Your task to perform on an android device: Open Wikipedia Image 0: 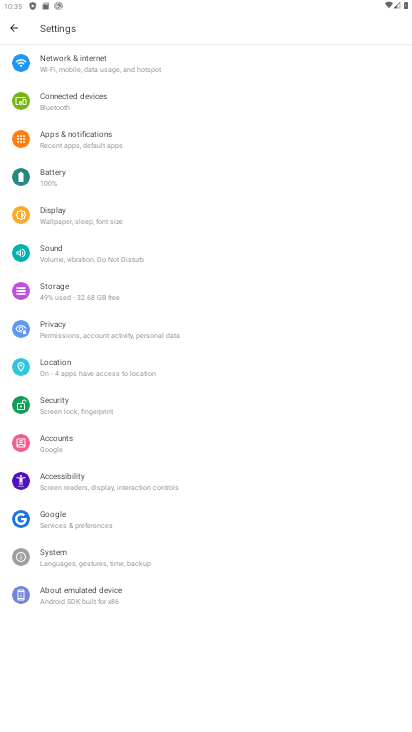
Step 0: press home button
Your task to perform on an android device: Open Wikipedia Image 1: 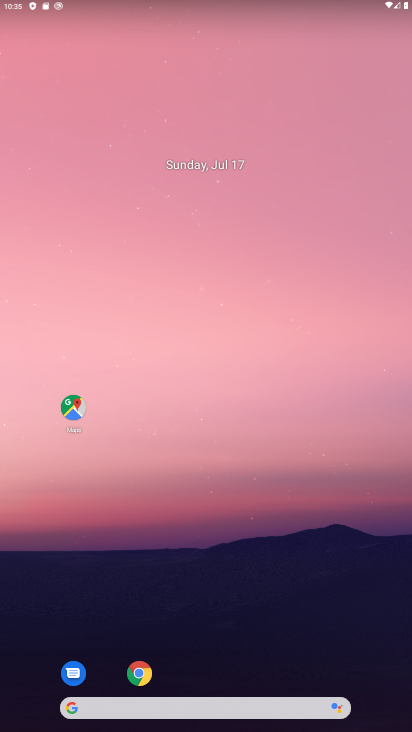
Step 1: drag from (201, 665) to (208, 143)
Your task to perform on an android device: Open Wikipedia Image 2: 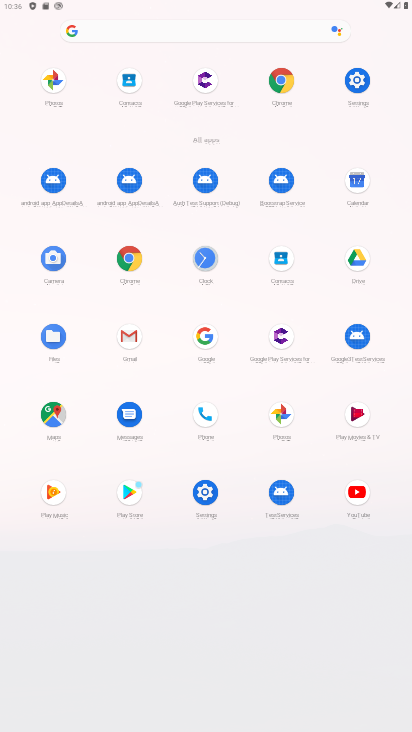
Step 2: click (130, 264)
Your task to perform on an android device: Open Wikipedia Image 3: 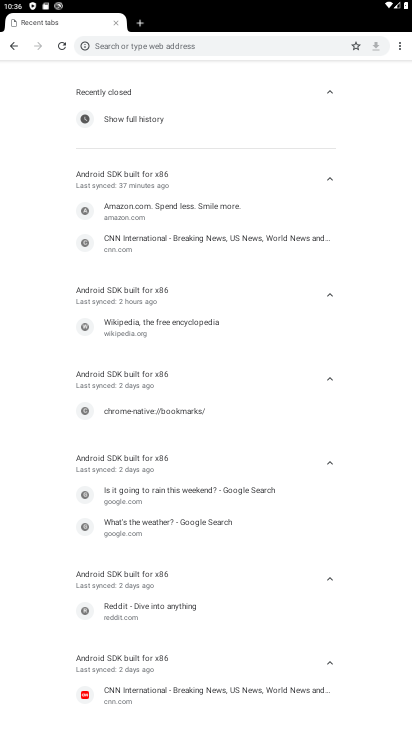
Step 3: press back button
Your task to perform on an android device: Open Wikipedia Image 4: 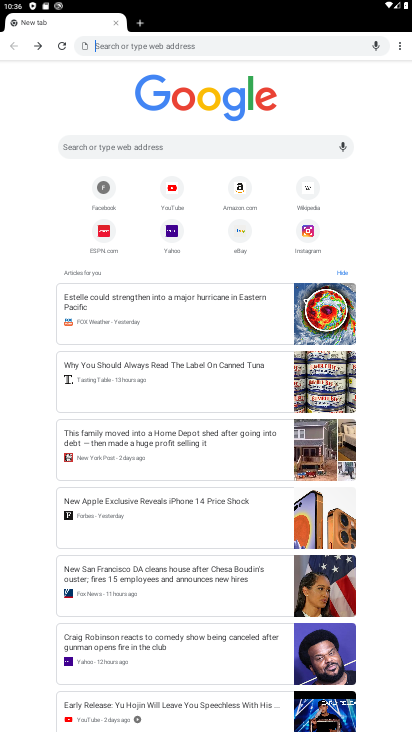
Step 4: click (308, 192)
Your task to perform on an android device: Open Wikipedia Image 5: 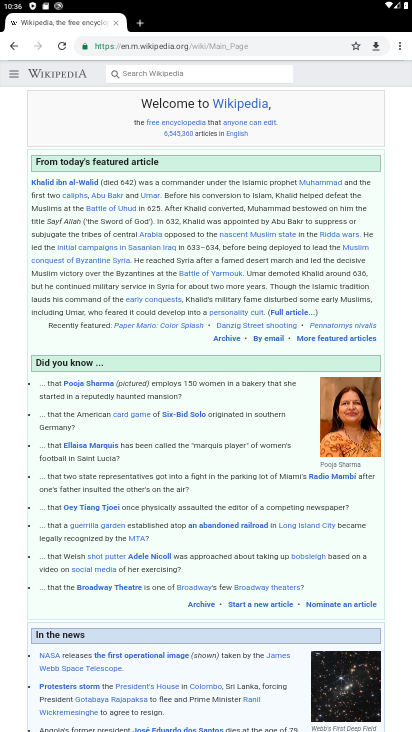
Step 5: task complete